Your task to perform on an android device: open app "Google Chrome" (install if not already installed) Image 0: 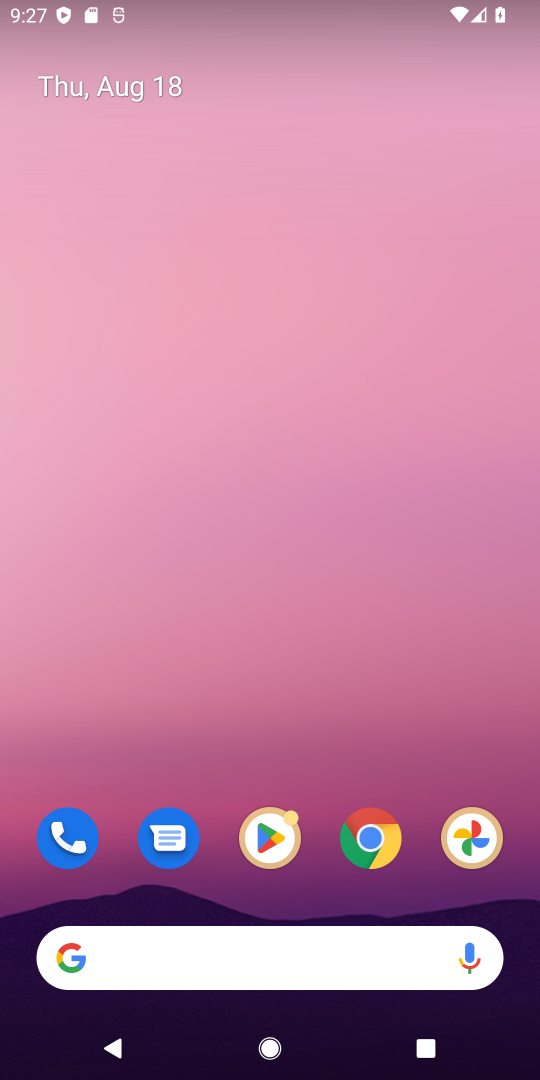
Step 0: task complete